Your task to perform on an android device: change timer sound Image 0: 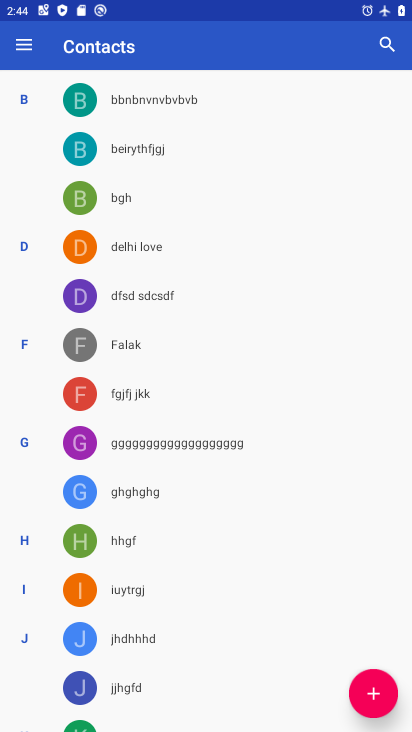
Step 0: press home button
Your task to perform on an android device: change timer sound Image 1: 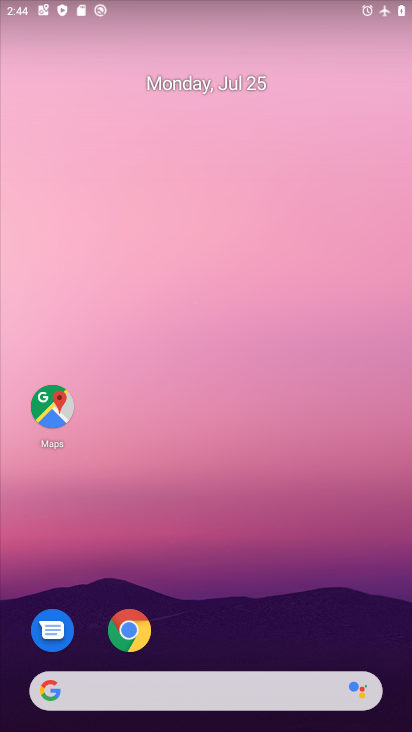
Step 1: drag from (318, 630) to (232, 70)
Your task to perform on an android device: change timer sound Image 2: 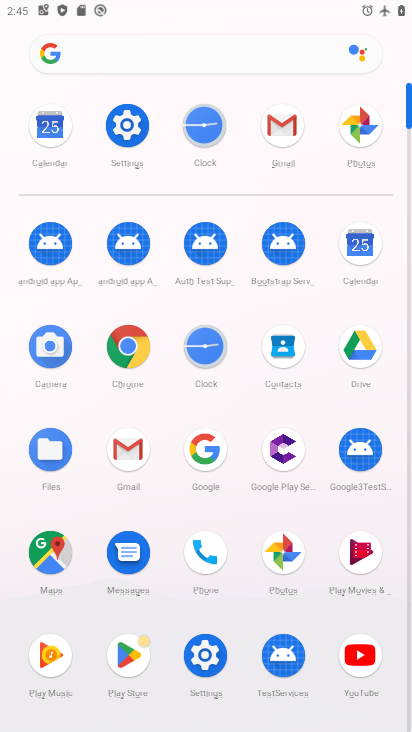
Step 2: click (195, 155)
Your task to perform on an android device: change timer sound Image 3: 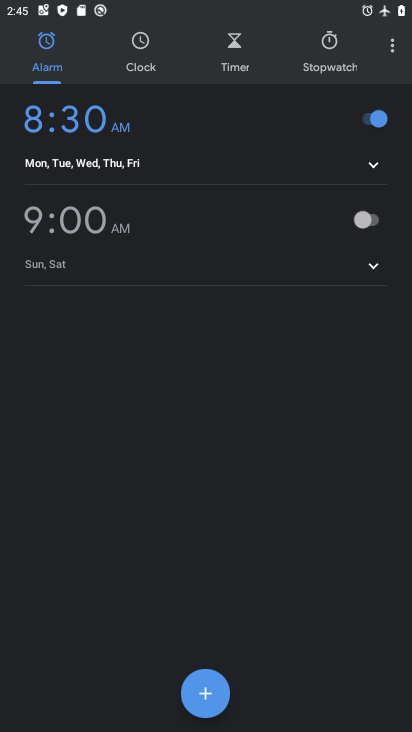
Step 3: click (380, 45)
Your task to perform on an android device: change timer sound Image 4: 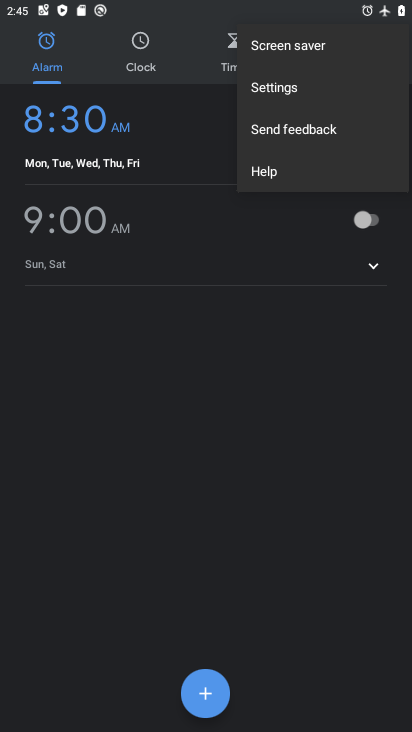
Step 4: click (267, 94)
Your task to perform on an android device: change timer sound Image 5: 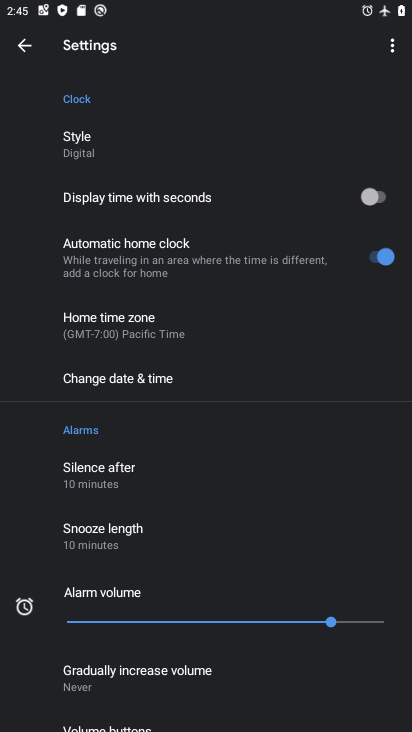
Step 5: drag from (181, 464) to (196, 199)
Your task to perform on an android device: change timer sound Image 6: 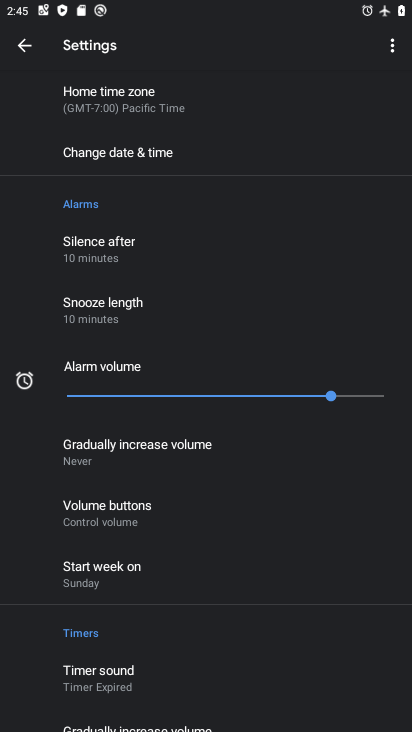
Step 6: drag from (197, 636) to (196, 497)
Your task to perform on an android device: change timer sound Image 7: 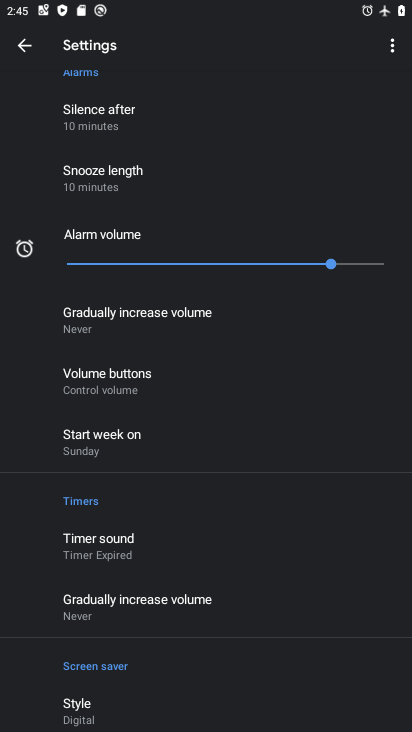
Step 7: click (157, 564)
Your task to perform on an android device: change timer sound Image 8: 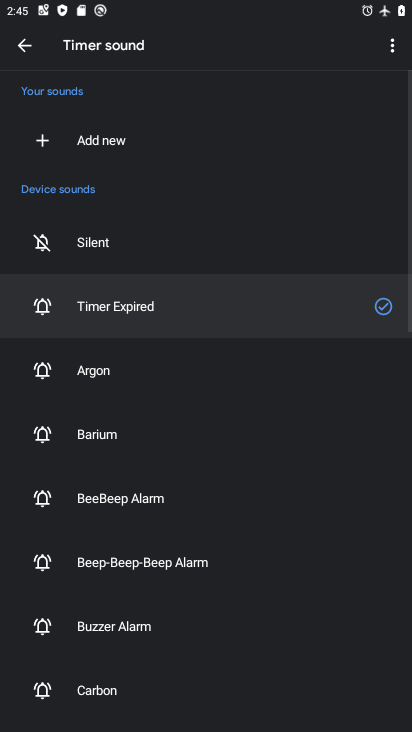
Step 8: task complete